Your task to perform on an android device: open a new tab in the chrome app Image 0: 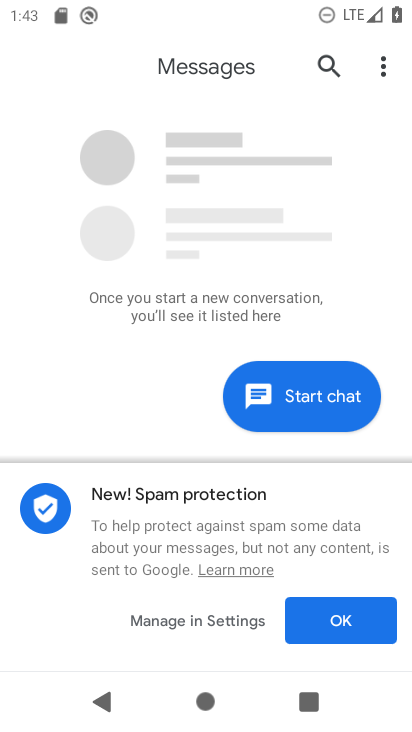
Step 0: press home button
Your task to perform on an android device: open a new tab in the chrome app Image 1: 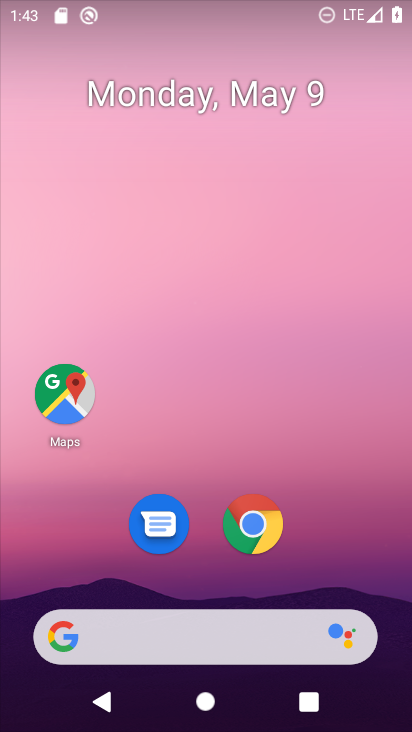
Step 1: click (245, 516)
Your task to perform on an android device: open a new tab in the chrome app Image 2: 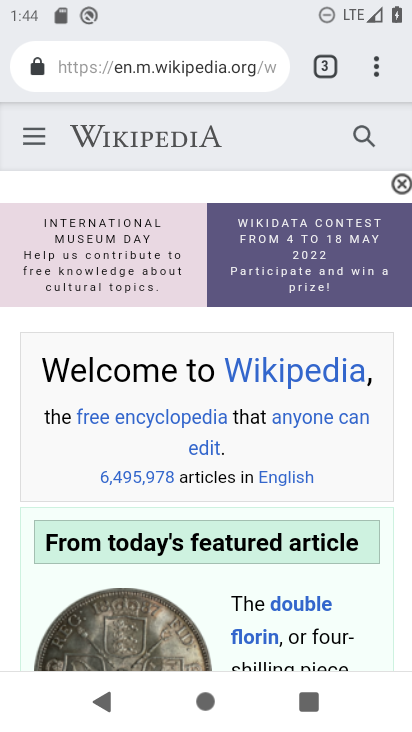
Step 2: task complete